Your task to perform on an android device: open chrome privacy settings Image 0: 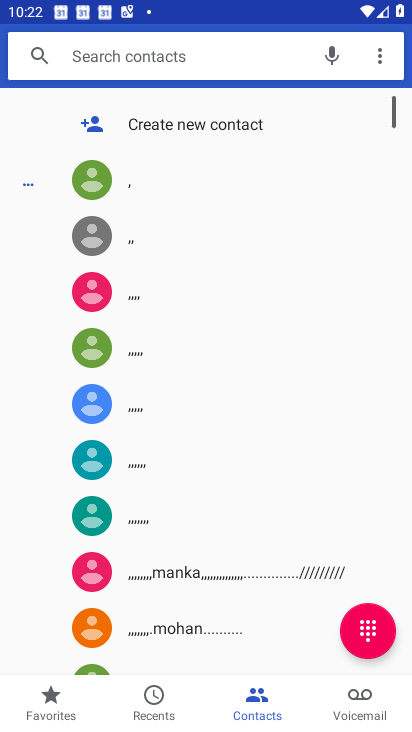
Step 0: press home button
Your task to perform on an android device: open chrome privacy settings Image 1: 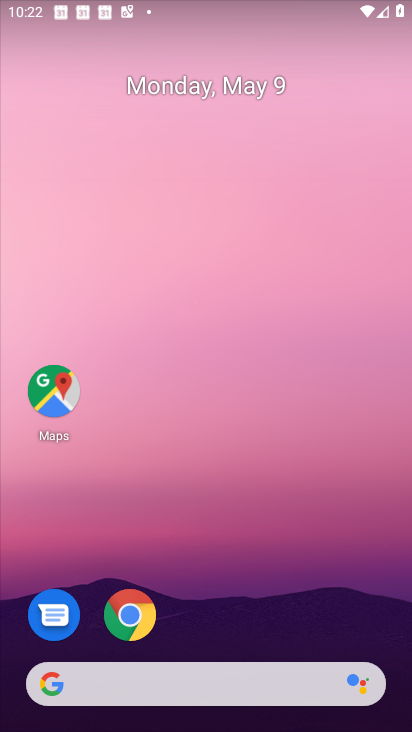
Step 1: drag from (279, 706) to (348, 234)
Your task to perform on an android device: open chrome privacy settings Image 2: 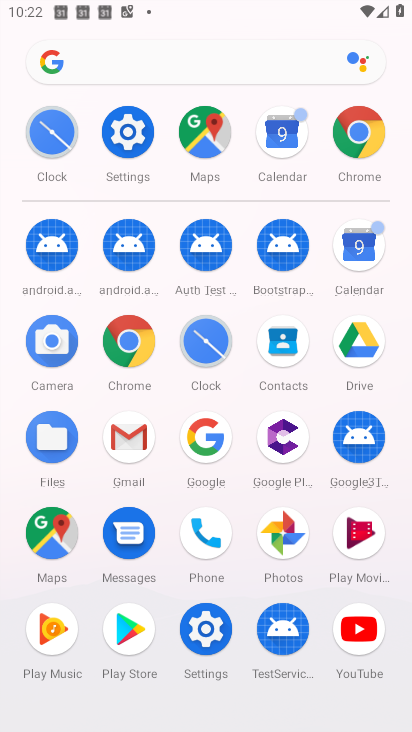
Step 2: click (123, 329)
Your task to perform on an android device: open chrome privacy settings Image 3: 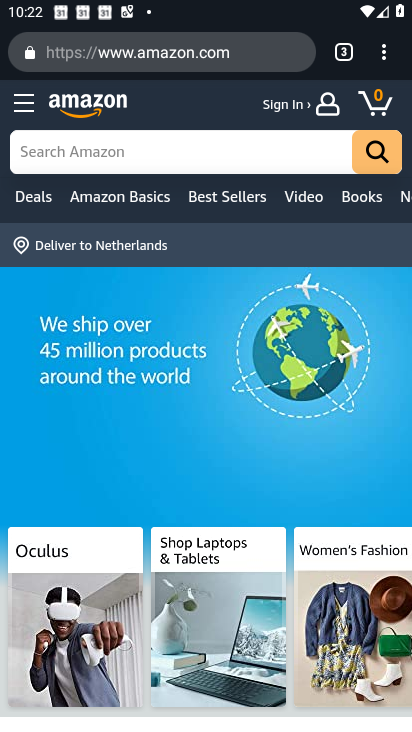
Step 3: click (378, 54)
Your task to perform on an android device: open chrome privacy settings Image 4: 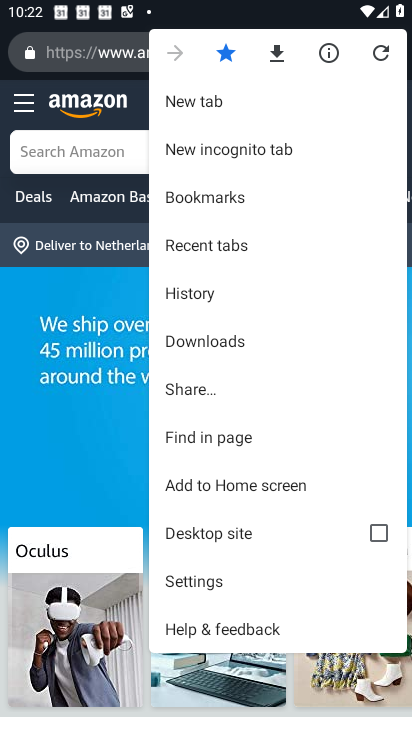
Step 4: click (236, 569)
Your task to perform on an android device: open chrome privacy settings Image 5: 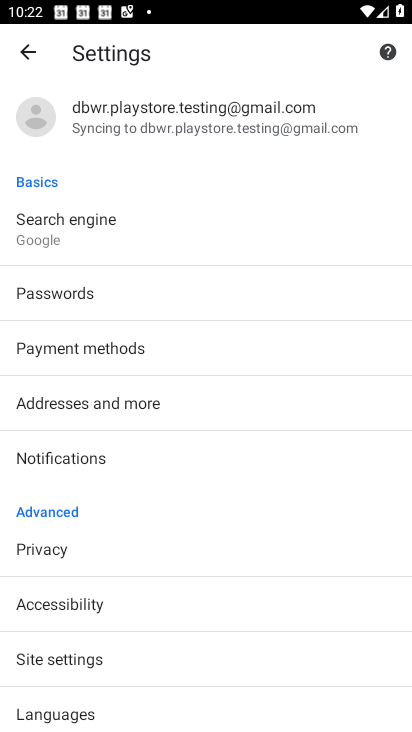
Step 5: drag from (212, 602) to (240, 487)
Your task to perform on an android device: open chrome privacy settings Image 6: 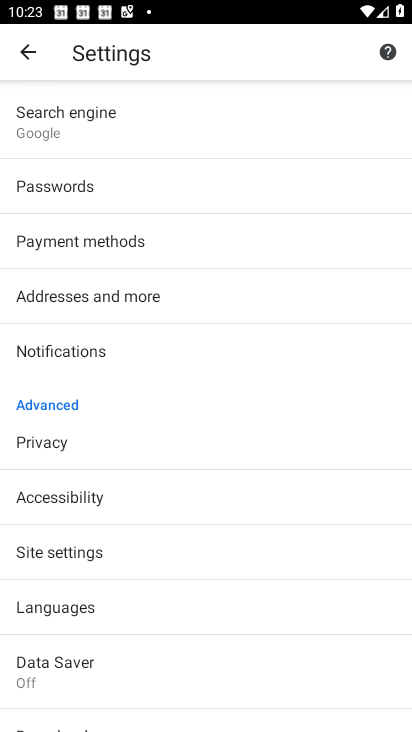
Step 6: click (104, 432)
Your task to perform on an android device: open chrome privacy settings Image 7: 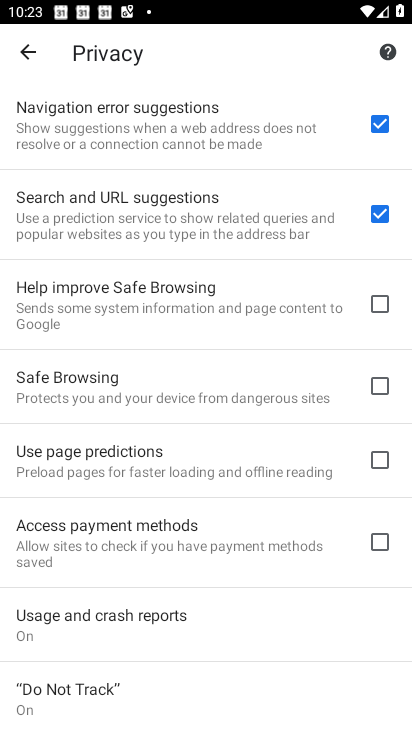
Step 7: task complete